Your task to perform on an android device: turn on bluetooth scan Image 0: 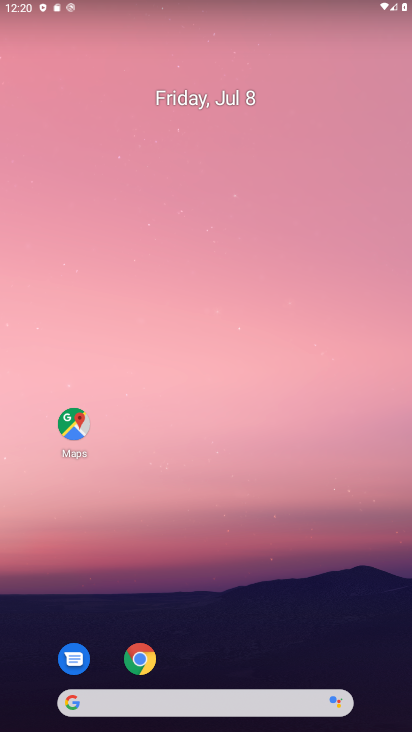
Step 0: click (346, 375)
Your task to perform on an android device: turn on bluetooth scan Image 1: 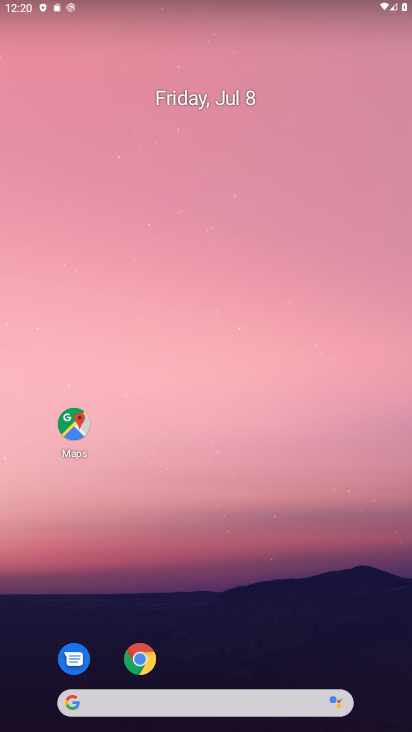
Step 1: drag from (254, 465) to (289, 148)
Your task to perform on an android device: turn on bluetooth scan Image 2: 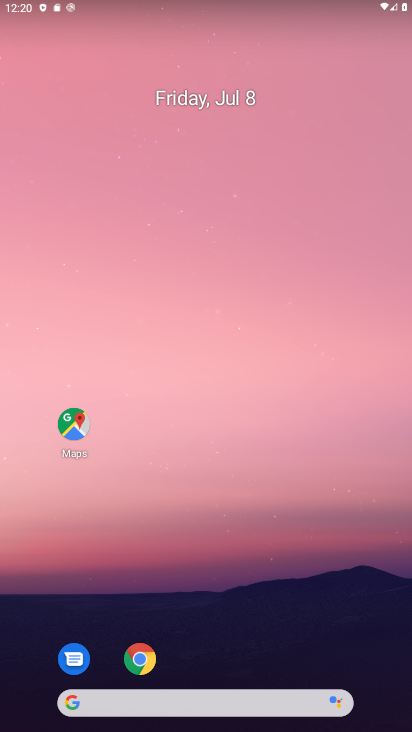
Step 2: drag from (219, 644) to (330, 32)
Your task to perform on an android device: turn on bluetooth scan Image 3: 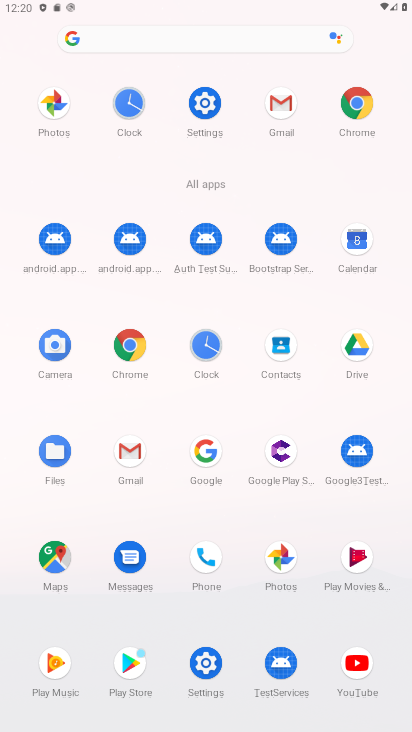
Step 3: click (212, 119)
Your task to perform on an android device: turn on bluetooth scan Image 4: 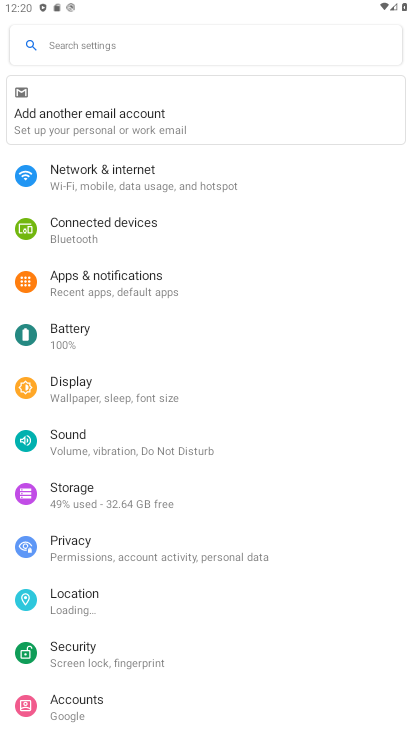
Step 4: click (112, 606)
Your task to perform on an android device: turn on bluetooth scan Image 5: 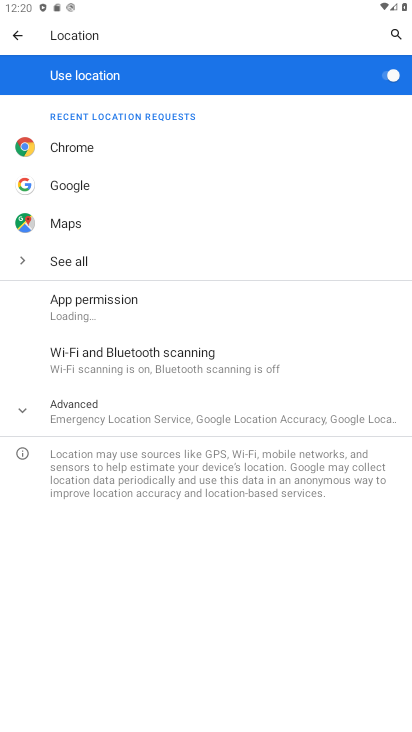
Step 5: click (231, 355)
Your task to perform on an android device: turn on bluetooth scan Image 6: 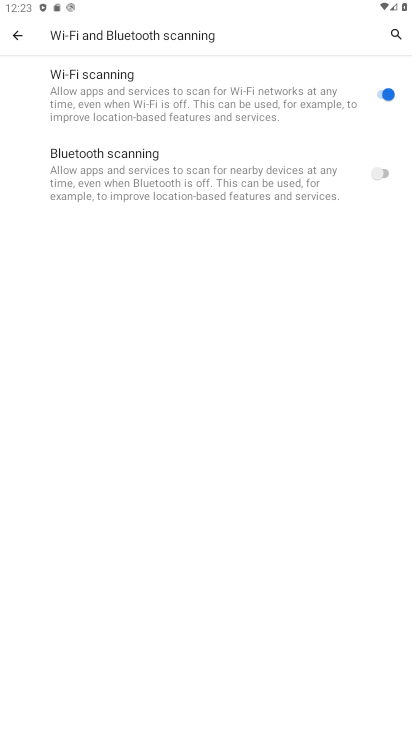
Step 6: click (379, 168)
Your task to perform on an android device: turn on bluetooth scan Image 7: 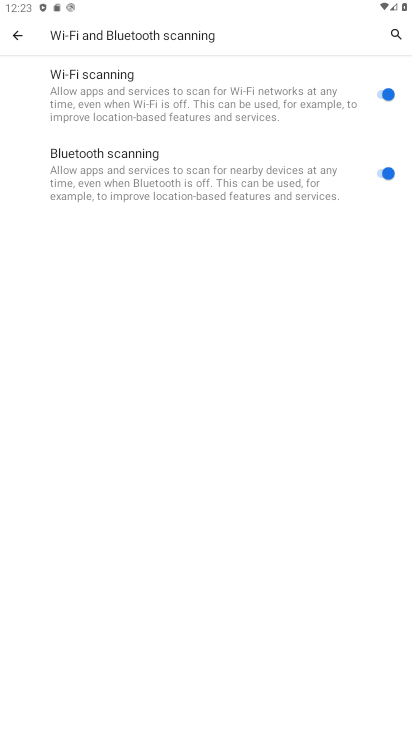
Step 7: task complete